Your task to perform on an android device: allow cookies in the chrome app Image 0: 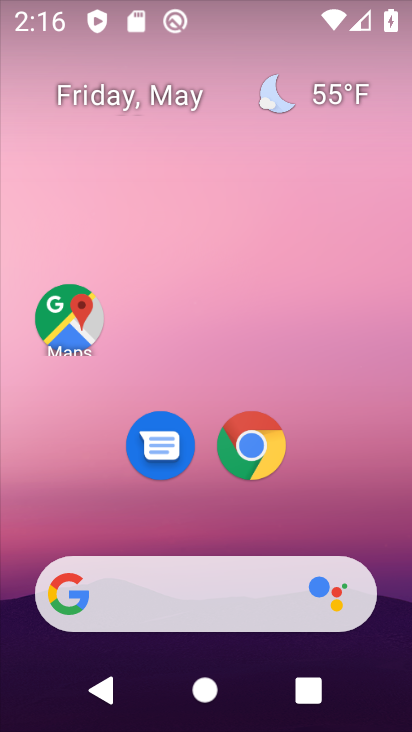
Step 0: drag from (365, 512) to (317, 128)
Your task to perform on an android device: allow cookies in the chrome app Image 1: 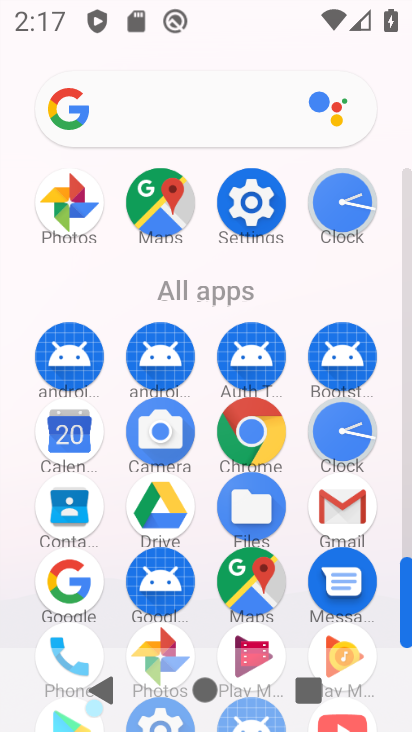
Step 1: click (250, 428)
Your task to perform on an android device: allow cookies in the chrome app Image 2: 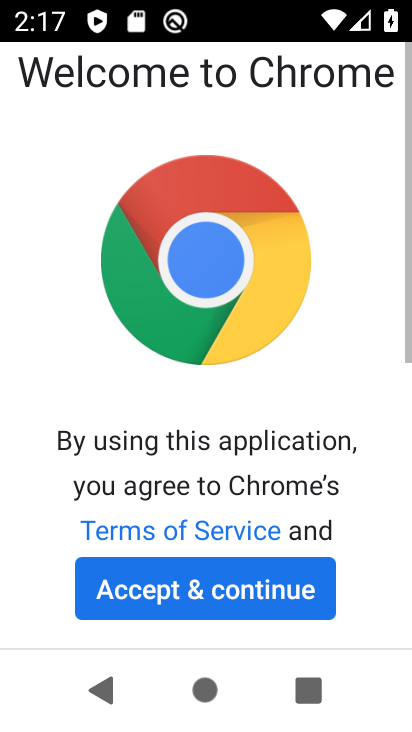
Step 2: click (267, 591)
Your task to perform on an android device: allow cookies in the chrome app Image 3: 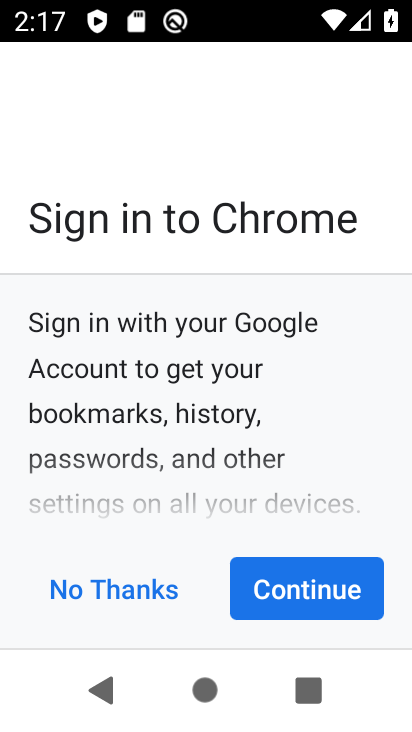
Step 3: click (267, 587)
Your task to perform on an android device: allow cookies in the chrome app Image 4: 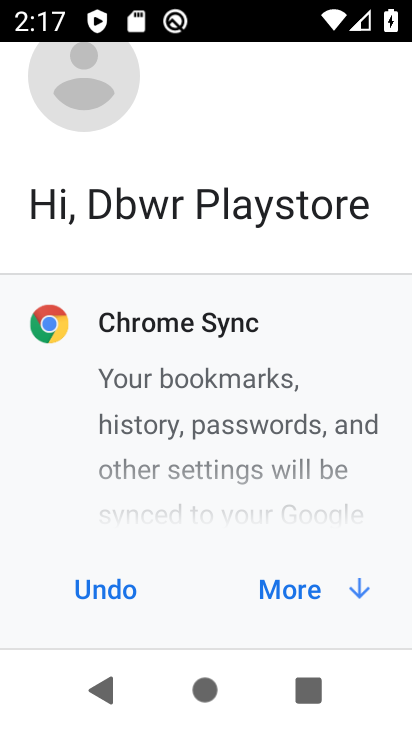
Step 4: click (267, 586)
Your task to perform on an android device: allow cookies in the chrome app Image 5: 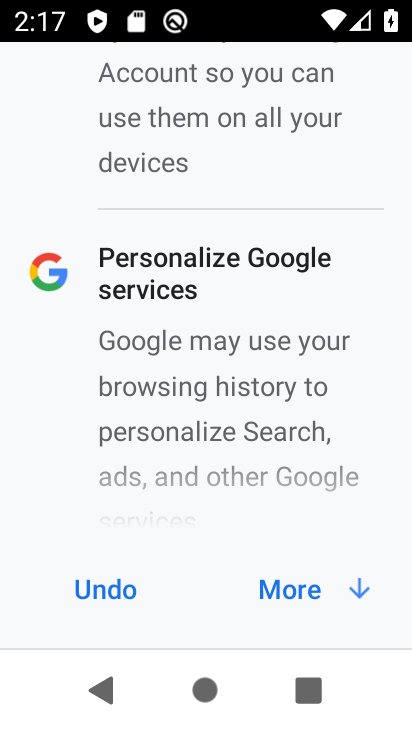
Step 5: click (268, 584)
Your task to perform on an android device: allow cookies in the chrome app Image 6: 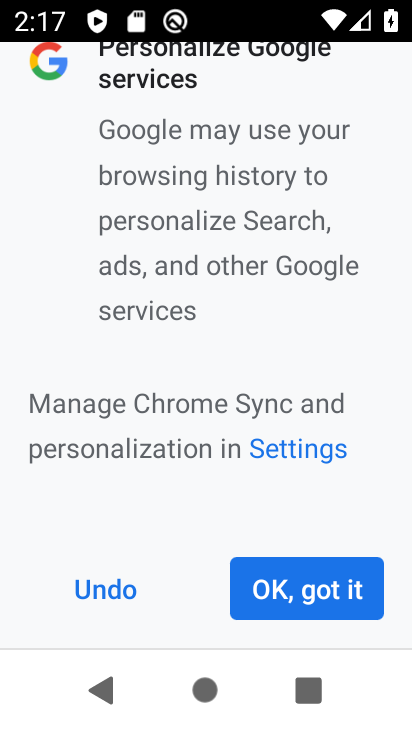
Step 6: click (268, 584)
Your task to perform on an android device: allow cookies in the chrome app Image 7: 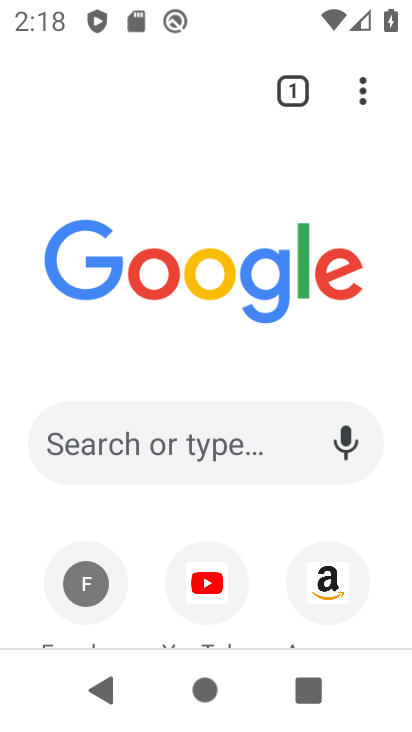
Step 7: click (370, 98)
Your task to perform on an android device: allow cookies in the chrome app Image 8: 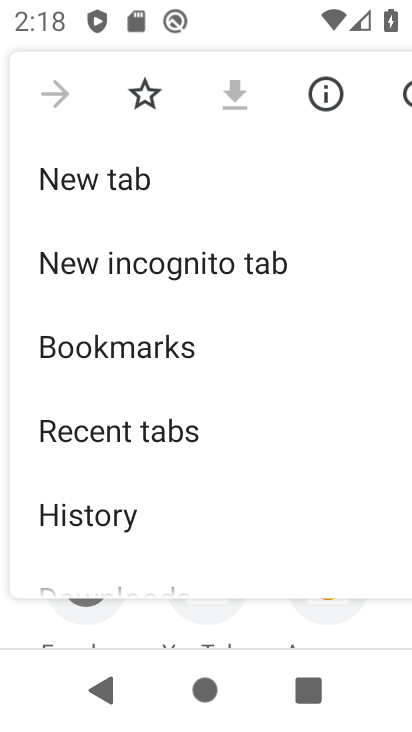
Step 8: drag from (183, 566) to (217, 221)
Your task to perform on an android device: allow cookies in the chrome app Image 9: 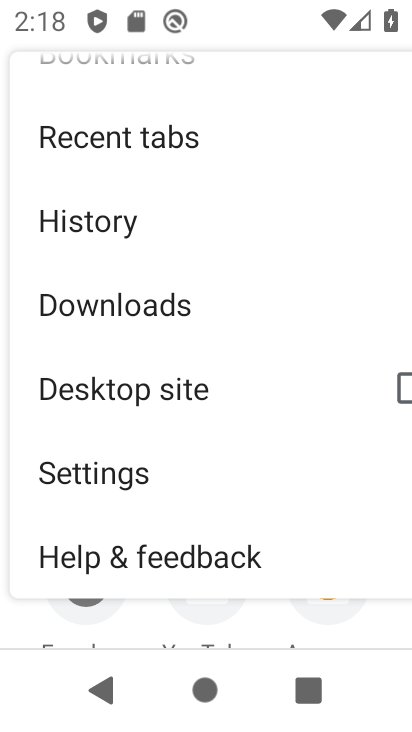
Step 9: click (164, 469)
Your task to perform on an android device: allow cookies in the chrome app Image 10: 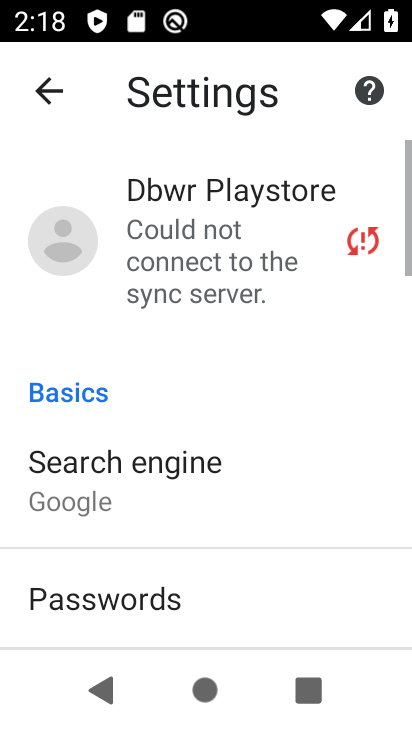
Step 10: drag from (211, 603) to (227, 242)
Your task to perform on an android device: allow cookies in the chrome app Image 11: 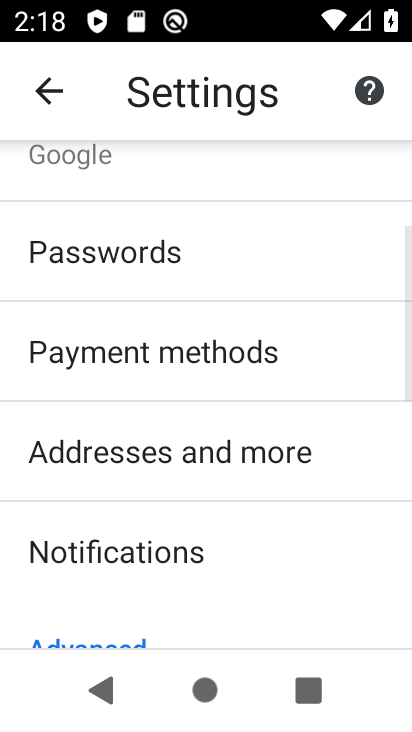
Step 11: drag from (245, 597) to (276, 226)
Your task to perform on an android device: allow cookies in the chrome app Image 12: 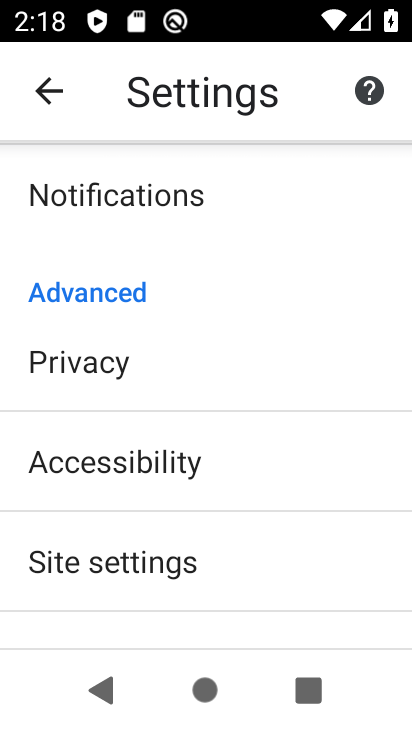
Step 12: click (191, 543)
Your task to perform on an android device: allow cookies in the chrome app Image 13: 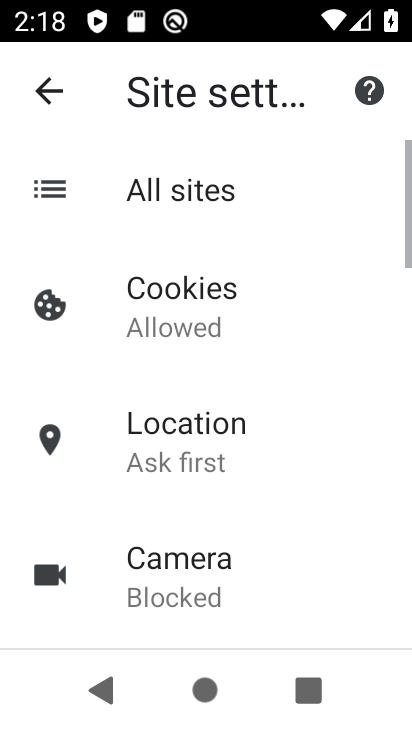
Step 13: click (204, 294)
Your task to perform on an android device: allow cookies in the chrome app Image 14: 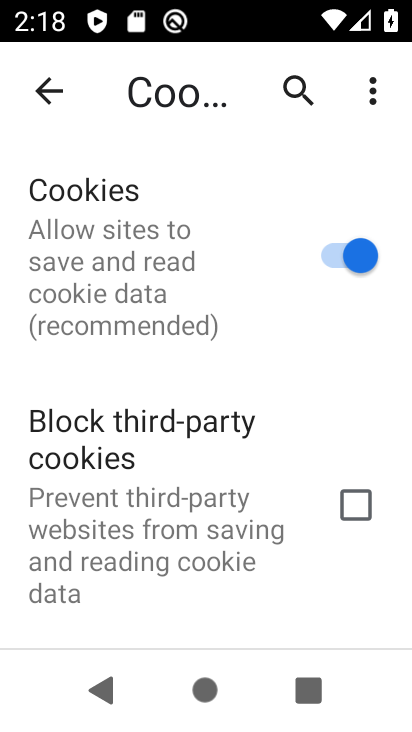
Step 14: task complete